Your task to perform on an android device: open the mobile data screen to see how much data has been used Image 0: 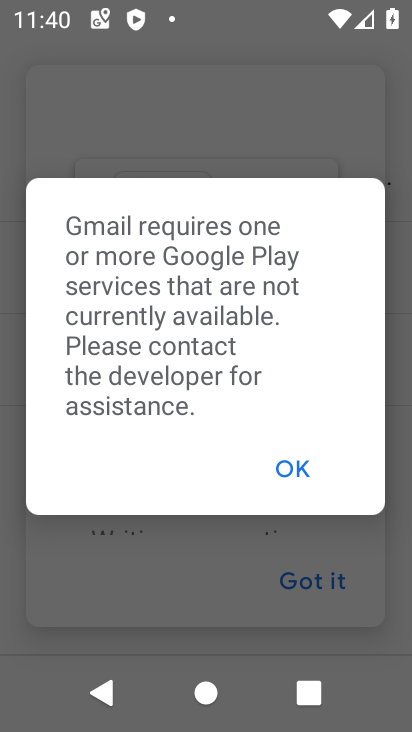
Step 0: press home button
Your task to perform on an android device: open the mobile data screen to see how much data has been used Image 1: 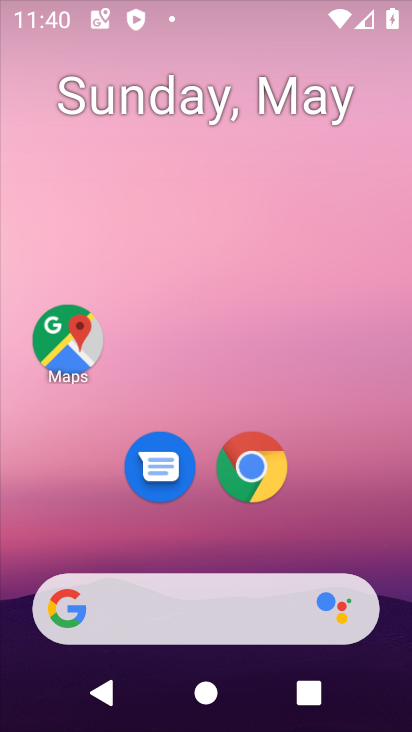
Step 1: drag from (387, 636) to (350, 111)
Your task to perform on an android device: open the mobile data screen to see how much data has been used Image 2: 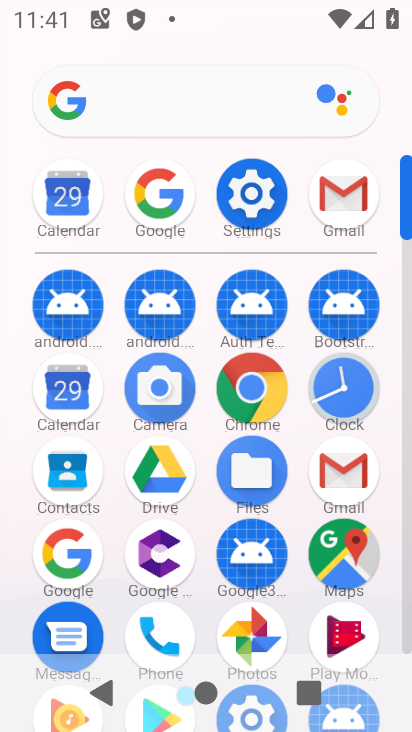
Step 2: click (259, 217)
Your task to perform on an android device: open the mobile data screen to see how much data has been used Image 3: 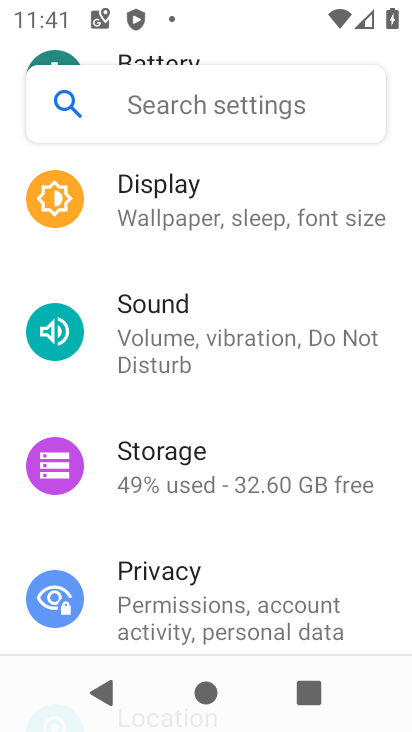
Step 3: drag from (232, 234) to (211, 641)
Your task to perform on an android device: open the mobile data screen to see how much data has been used Image 4: 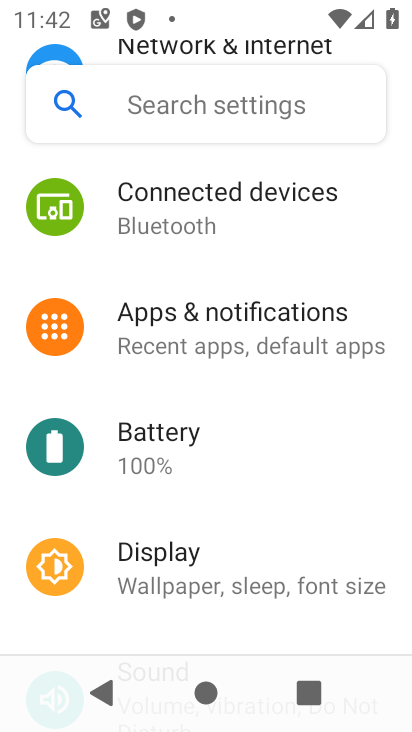
Step 4: drag from (207, 236) to (163, 646)
Your task to perform on an android device: open the mobile data screen to see how much data has been used Image 5: 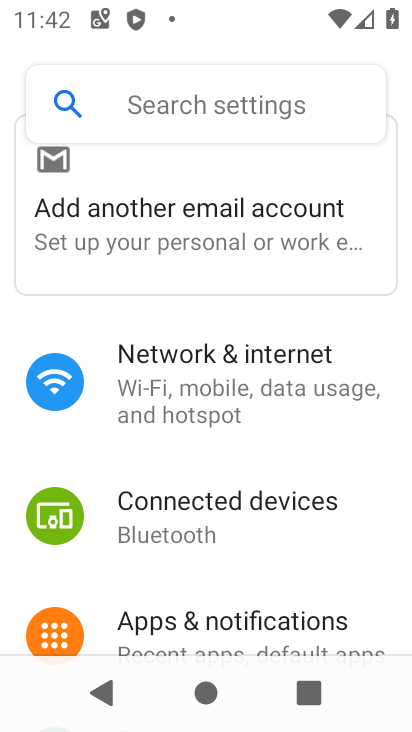
Step 5: click (172, 396)
Your task to perform on an android device: open the mobile data screen to see how much data has been used Image 6: 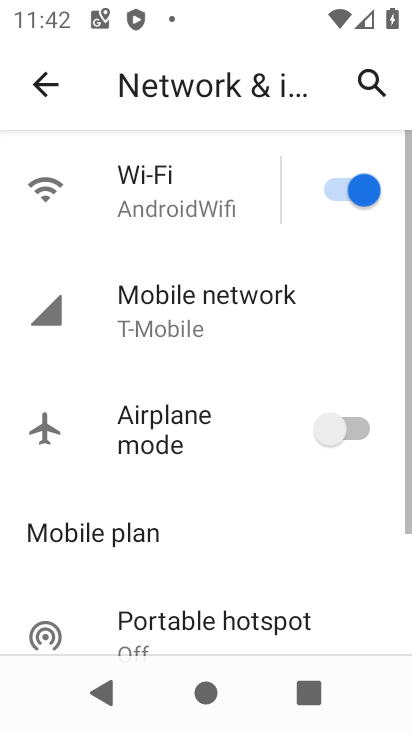
Step 6: click (144, 326)
Your task to perform on an android device: open the mobile data screen to see how much data has been used Image 7: 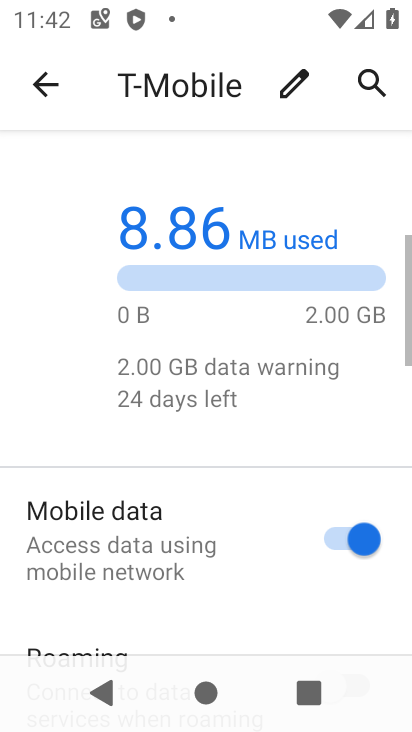
Step 7: drag from (112, 570) to (124, 133)
Your task to perform on an android device: open the mobile data screen to see how much data has been used Image 8: 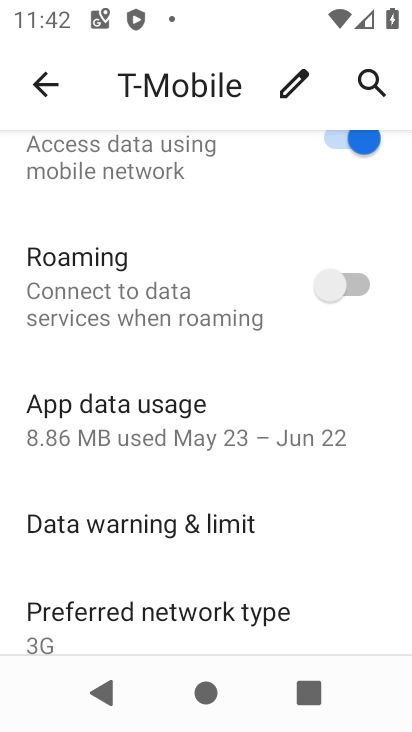
Step 8: click (151, 403)
Your task to perform on an android device: open the mobile data screen to see how much data has been used Image 9: 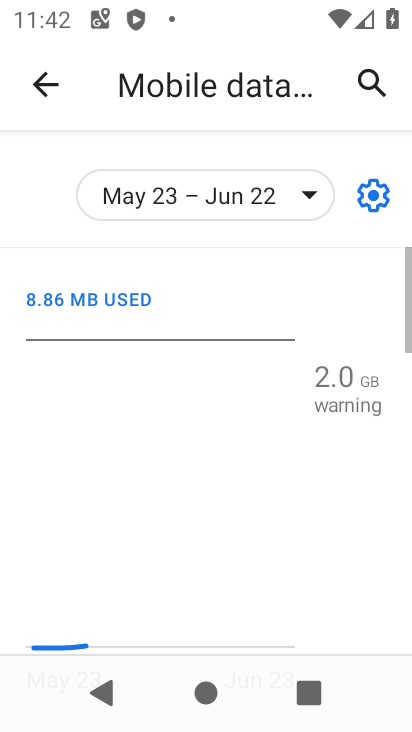
Step 9: task complete